Your task to perform on an android device: Search for "logitech g903" on walmart, select the first entry, add it to the cart, then select checkout. Image 0: 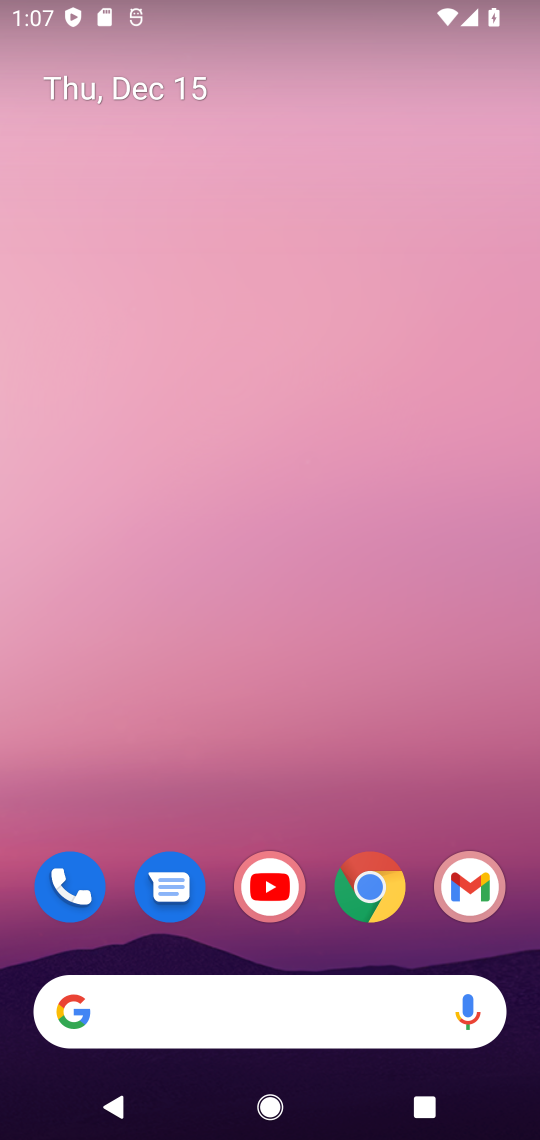
Step 0: click (369, 891)
Your task to perform on an android device: Search for "logitech g903" on walmart, select the first entry, add it to the cart, then select checkout. Image 1: 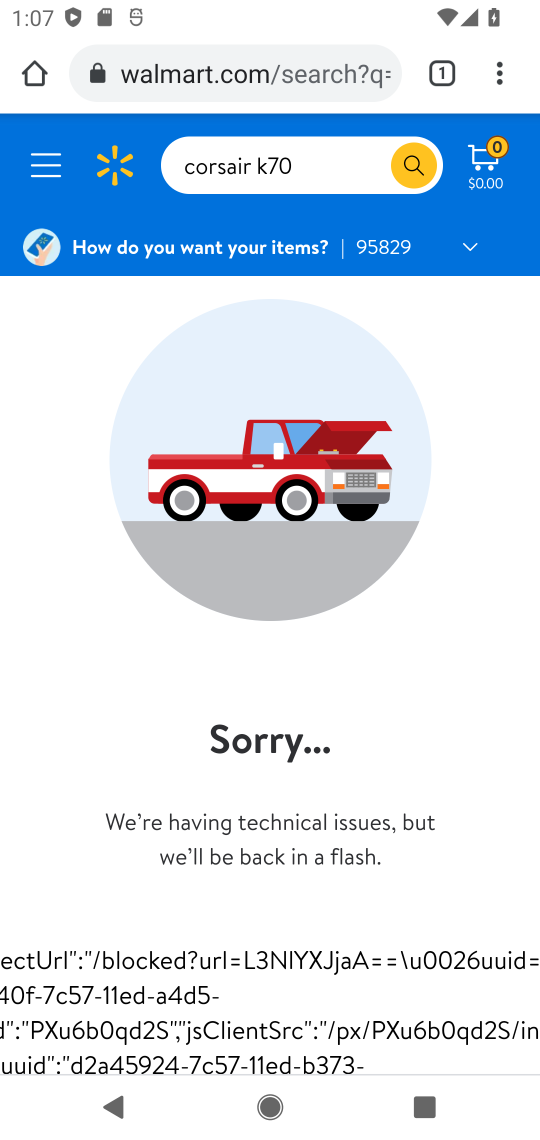
Step 1: click (281, 162)
Your task to perform on an android device: Search for "logitech g903" on walmart, select the first entry, add it to the cart, then select checkout. Image 2: 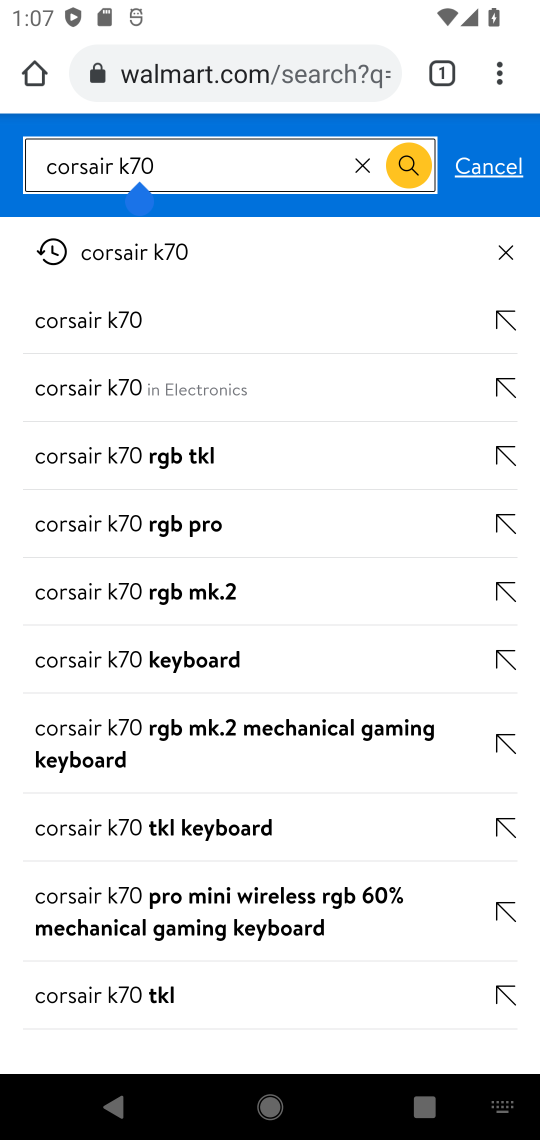
Step 2: click (364, 168)
Your task to perform on an android device: Search for "logitech g903" on walmart, select the first entry, add it to the cart, then select checkout. Image 3: 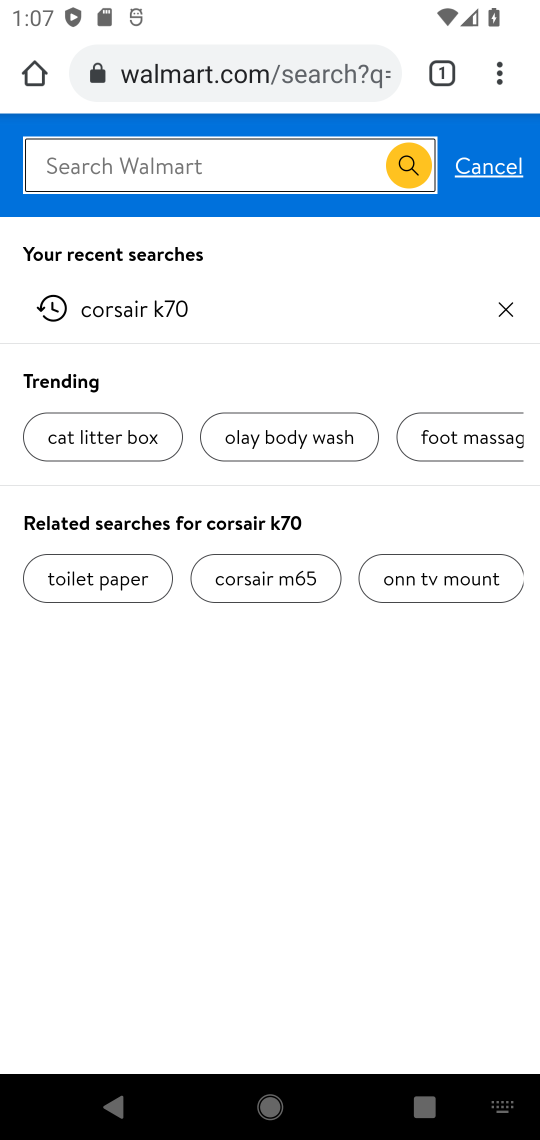
Step 3: type "logitech g903"
Your task to perform on an android device: Search for "logitech g903" on walmart, select the first entry, add it to the cart, then select checkout. Image 4: 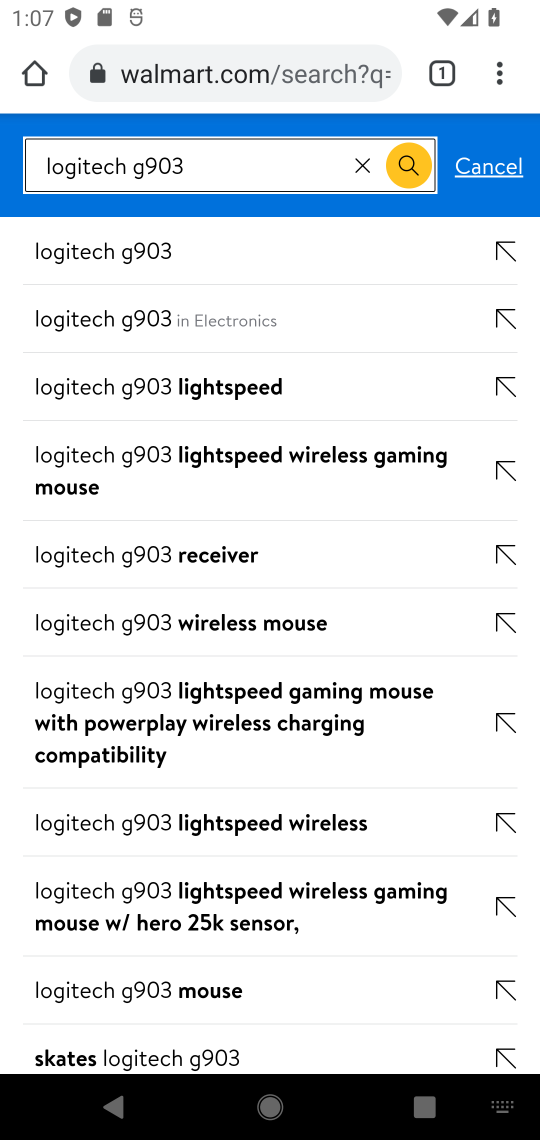
Step 4: click (138, 263)
Your task to perform on an android device: Search for "logitech g903" on walmart, select the first entry, add it to the cart, then select checkout. Image 5: 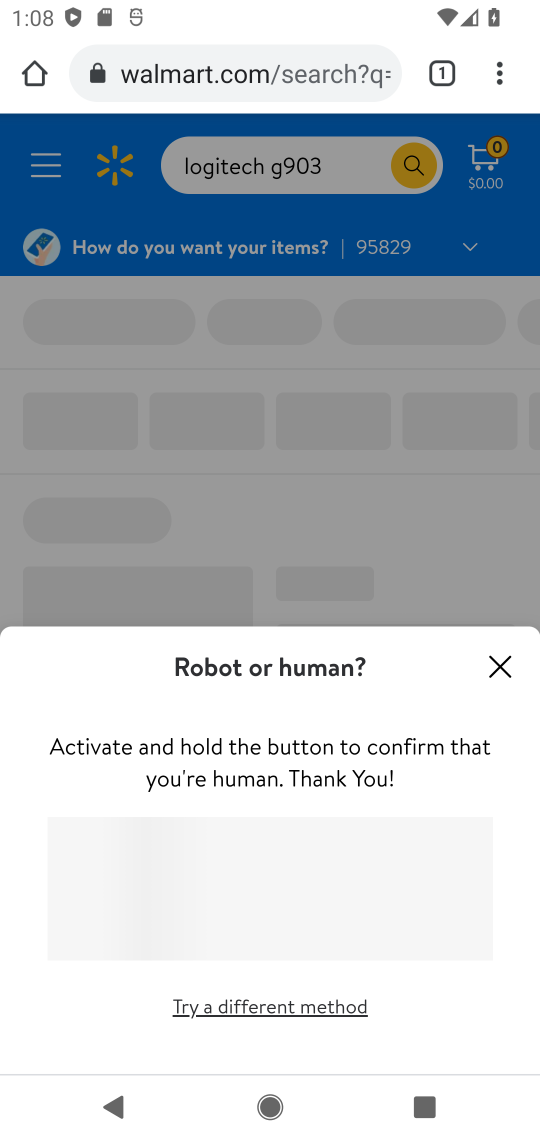
Step 5: click (496, 815)
Your task to perform on an android device: Search for "logitech g903" on walmart, select the first entry, add it to the cart, then select checkout. Image 6: 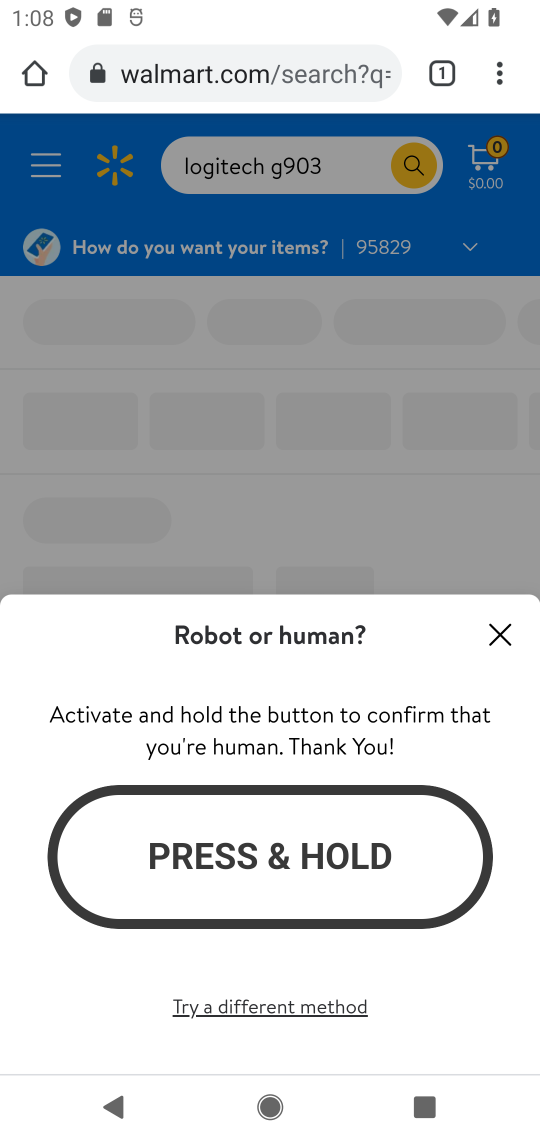
Step 6: click (283, 837)
Your task to perform on an android device: Search for "logitech g903" on walmart, select the first entry, add it to the cart, then select checkout. Image 7: 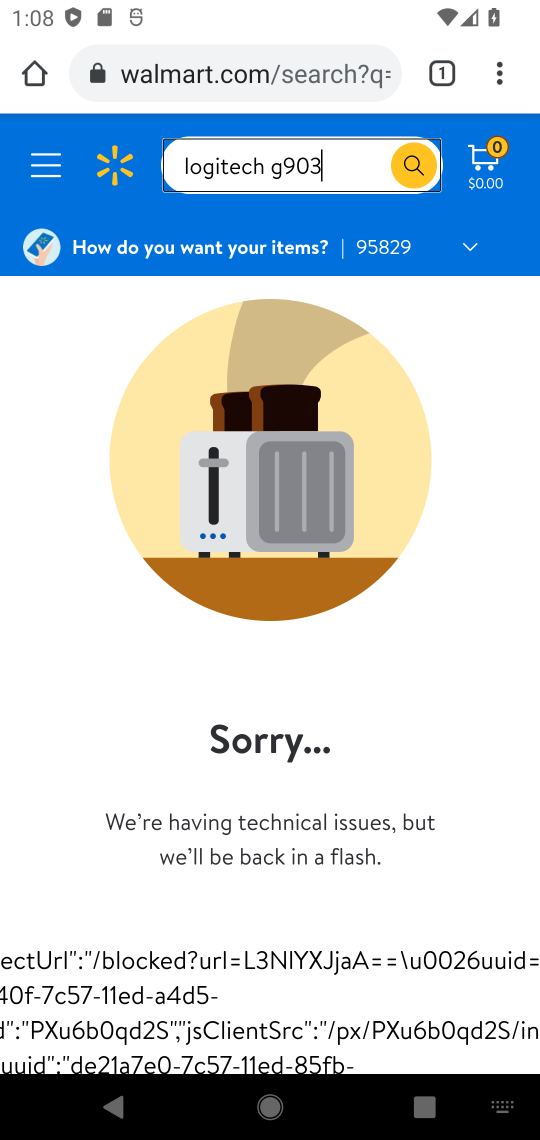
Step 7: task complete